Your task to perform on an android device: open a new tab in the chrome app Image 0: 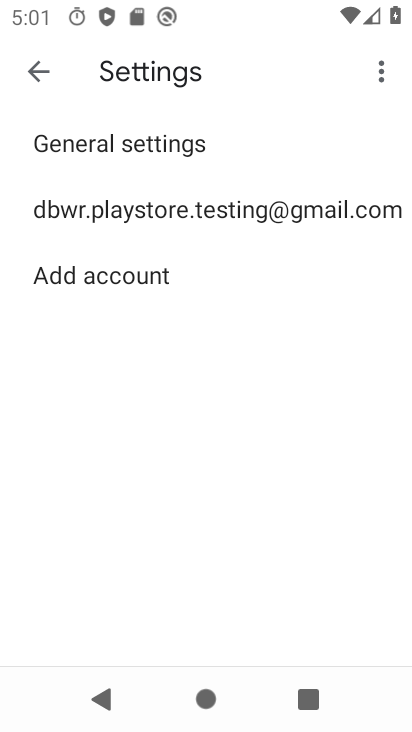
Step 0: press home button
Your task to perform on an android device: open a new tab in the chrome app Image 1: 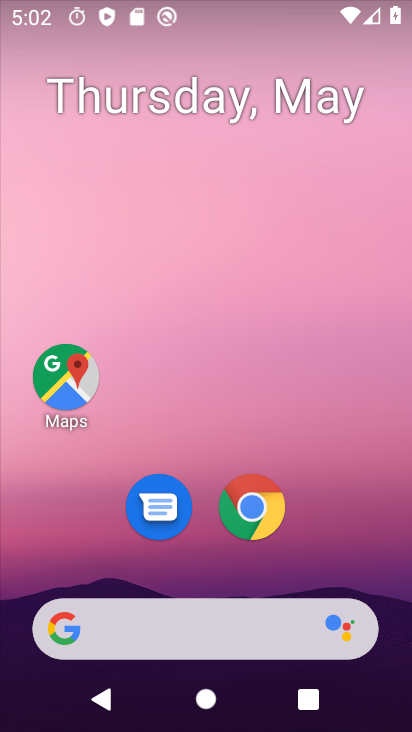
Step 1: click (243, 503)
Your task to perform on an android device: open a new tab in the chrome app Image 2: 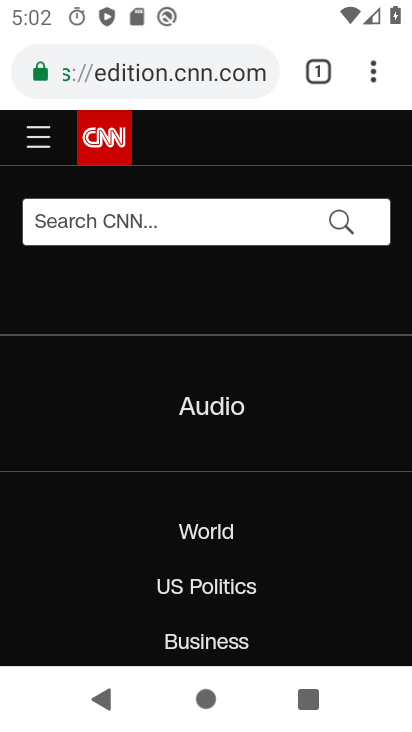
Step 2: task complete